Your task to perform on an android device: change text size in settings app Image 0: 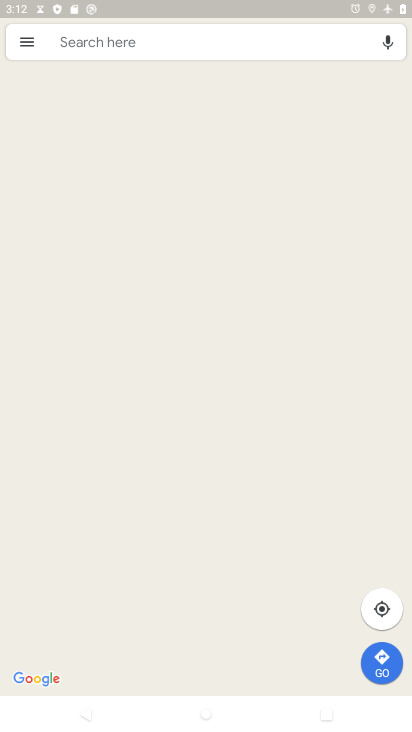
Step 0: press home button
Your task to perform on an android device: change text size in settings app Image 1: 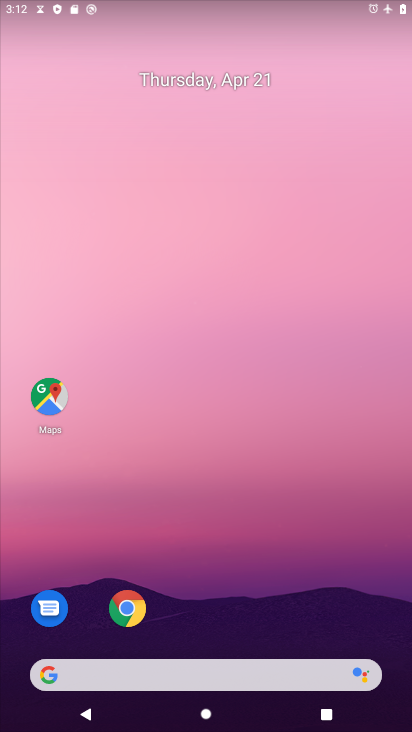
Step 1: drag from (226, 603) to (248, 149)
Your task to perform on an android device: change text size in settings app Image 2: 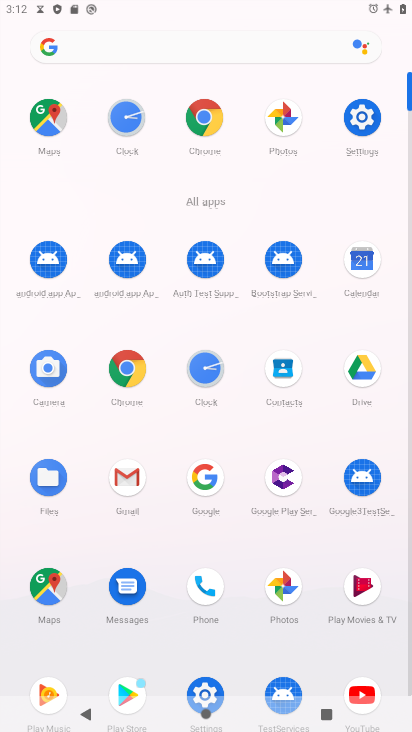
Step 2: click (356, 124)
Your task to perform on an android device: change text size in settings app Image 3: 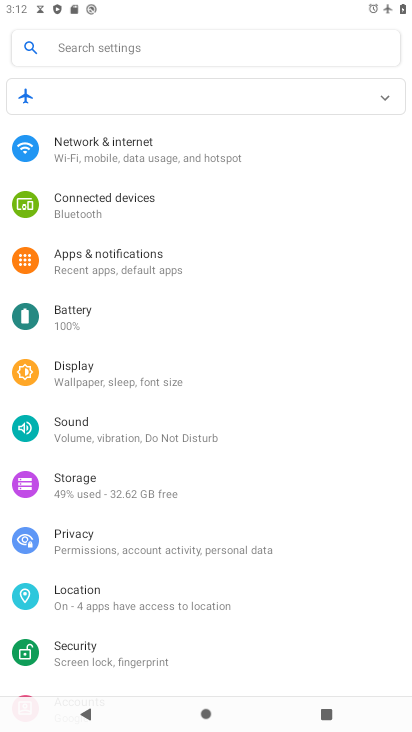
Step 3: click (210, 382)
Your task to perform on an android device: change text size in settings app Image 4: 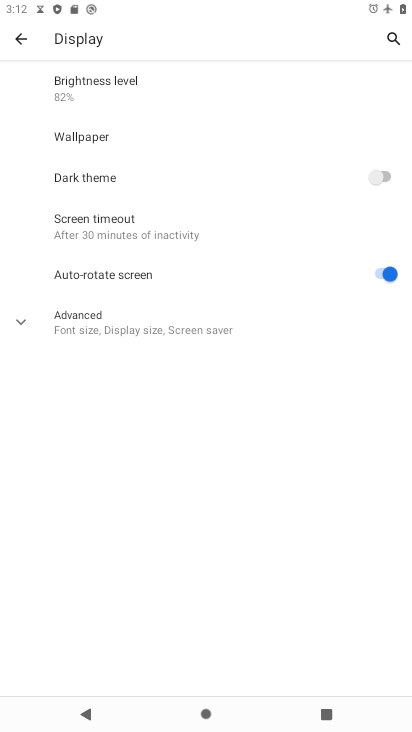
Step 4: click (221, 331)
Your task to perform on an android device: change text size in settings app Image 5: 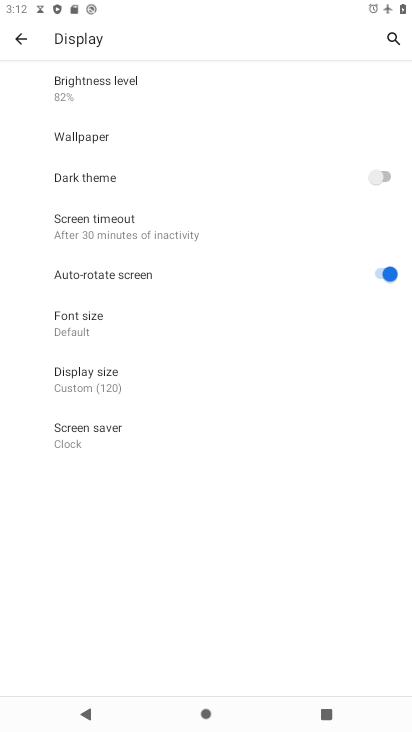
Step 5: click (255, 323)
Your task to perform on an android device: change text size in settings app Image 6: 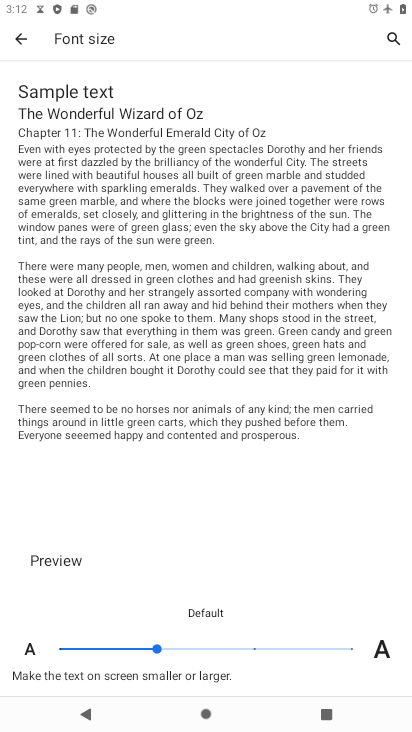
Step 6: click (227, 644)
Your task to perform on an android device: change text size in settings app Image 7: 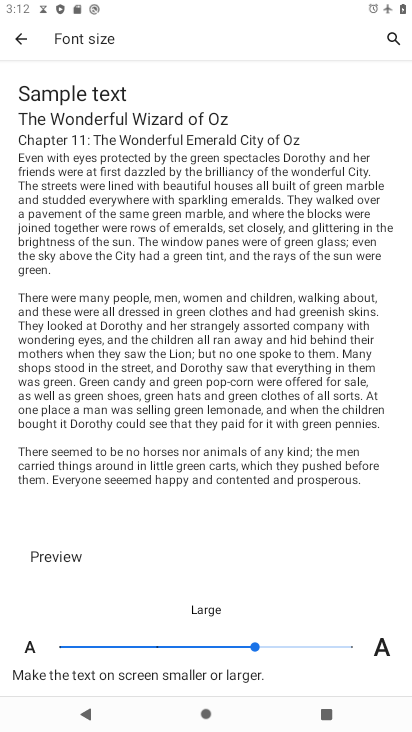
Step 7: task complete